Your task to perform on an android device: Open the calendar and show me this week's events? Image 0: 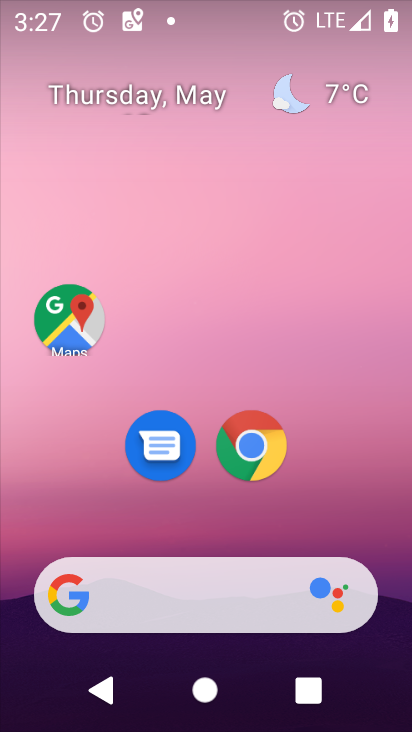
Step 0: press home button
Your task to perform on an android device: Open the calendar and show me this week's events? Image 1: 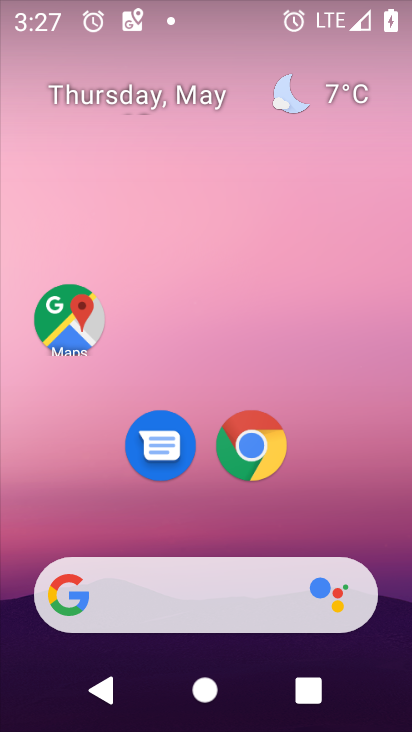
Step 1: drag from (364, 550) to (376, 11)
Your task to perform on an android device: Open the calendar and show me this week's events? Image 2: 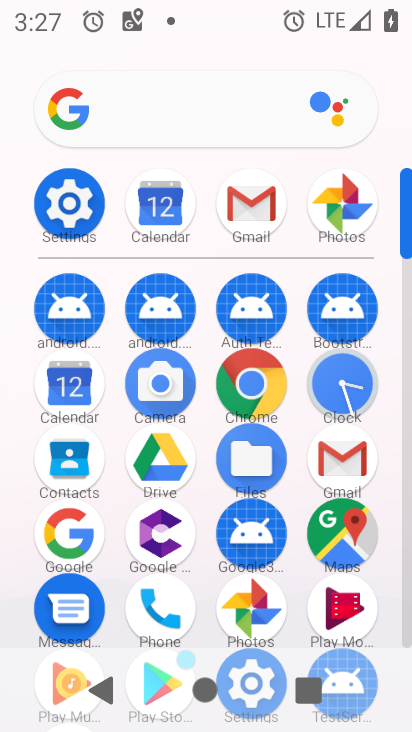
Step 2: click (168, 214)
Your task to perform on an android device: Open the calendar and show me this week's events? Image 3: 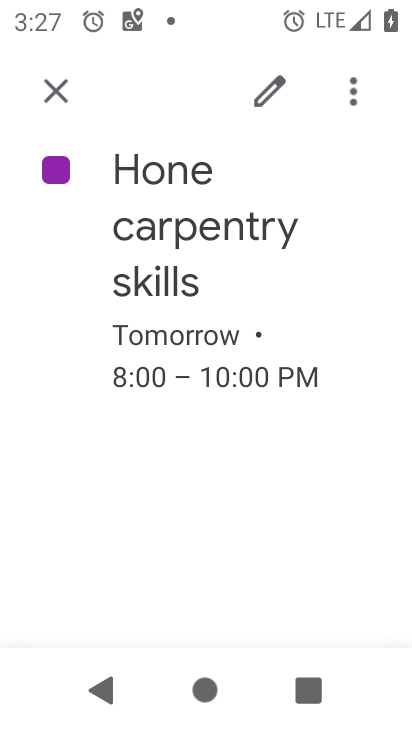
Step 3: click (53, 98)
Your task to perform on an android device: Open the calendar and show me this week's events? Image 4: 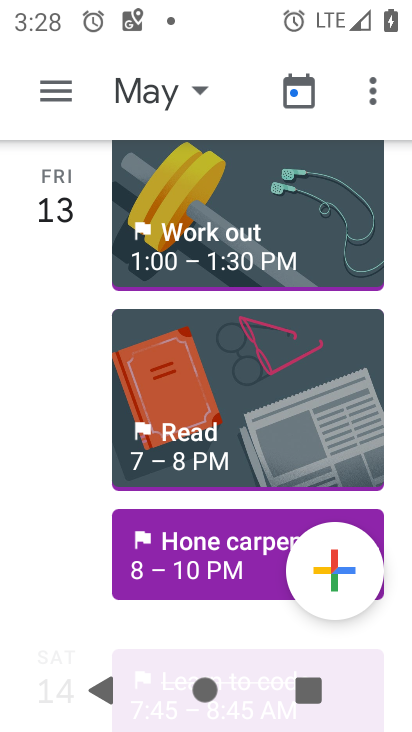
Step 4: click (59, 90)
Your task to perform on an android device: Open the calendar and show me this week's events? Image 5: 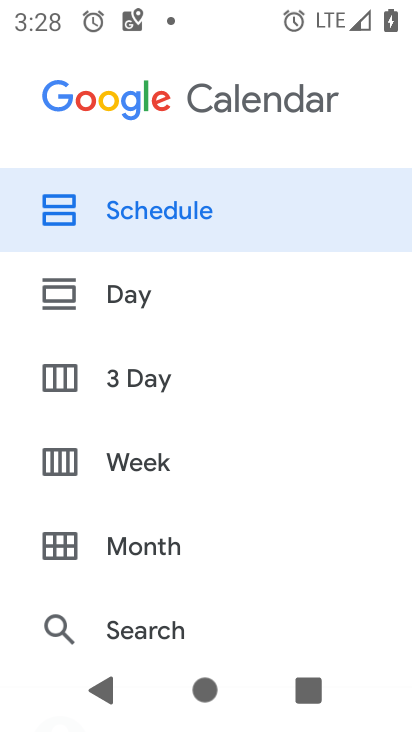
Step 5: drag from (115, 473) to (76, 138)
Your task to perform on an android device: Open the calendar and show me this week's events? Image 6: 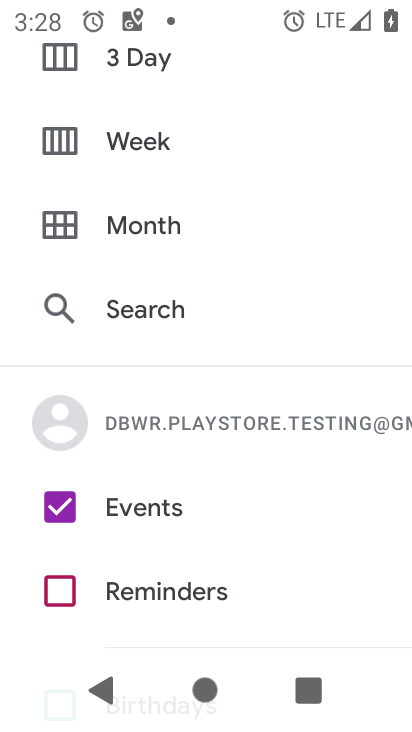
Step 6: click (60, 154)
Your task to perform on an android device: Open the calendar and show me this week's events? Image 7: 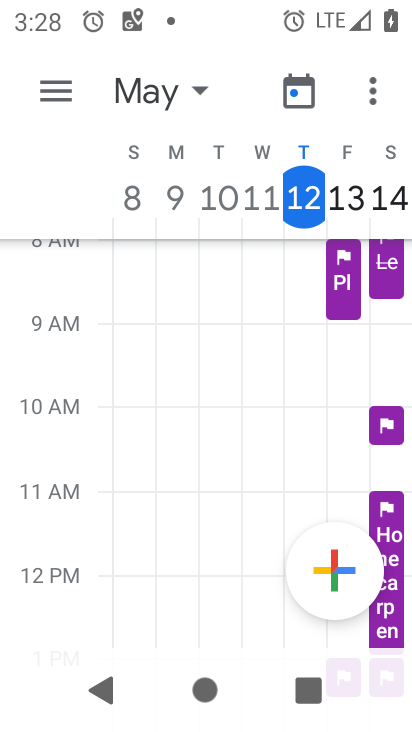
Step 7: task complete